Your task to perform on an android device: Open ESPN.com Image 0: 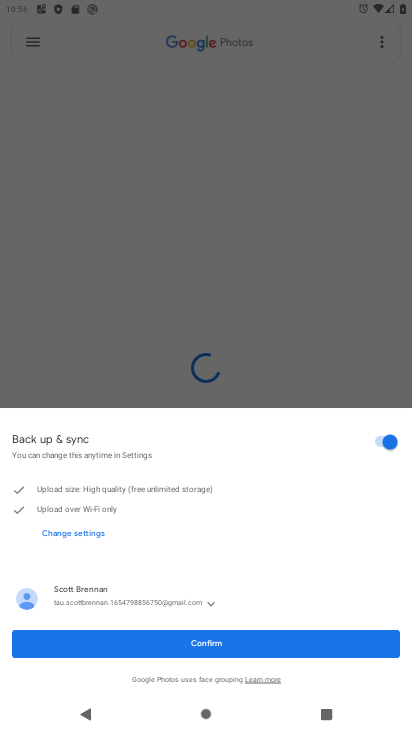
Step 0: press home button
Your task to perform on an android device: Open ESPN.com Image 1: 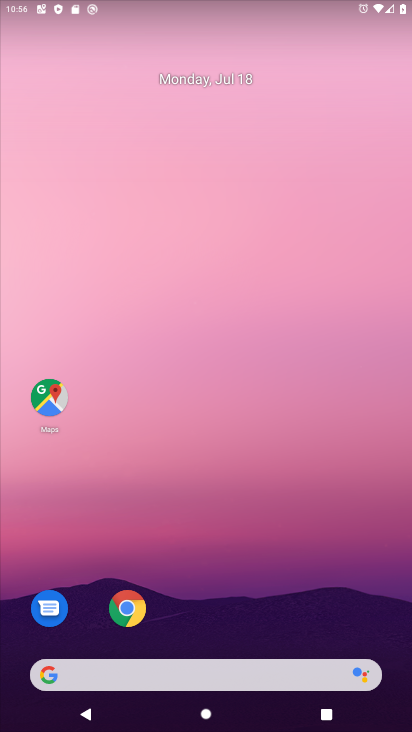
Step 1: click (136, 609)
Your task to perform on an android device: Open ESPN.com Image 2: 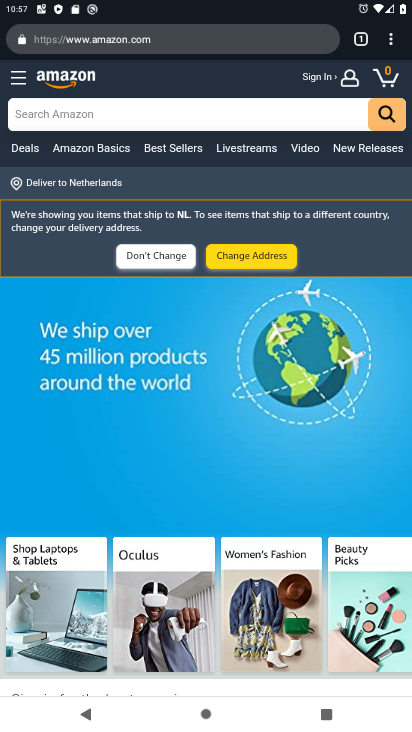
Step 2: click (172, 43)
Your task to perform on an android device: Open ESPN.com Image 3: 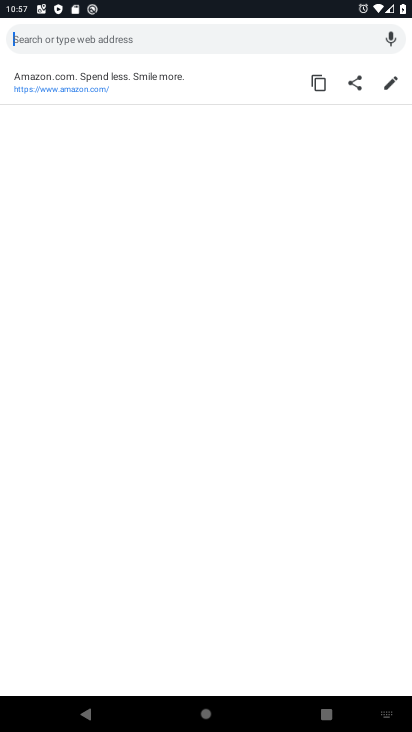
Step 3: type "espn.com"
Your task to perform on an android device: Open ESPN.com Image 4: 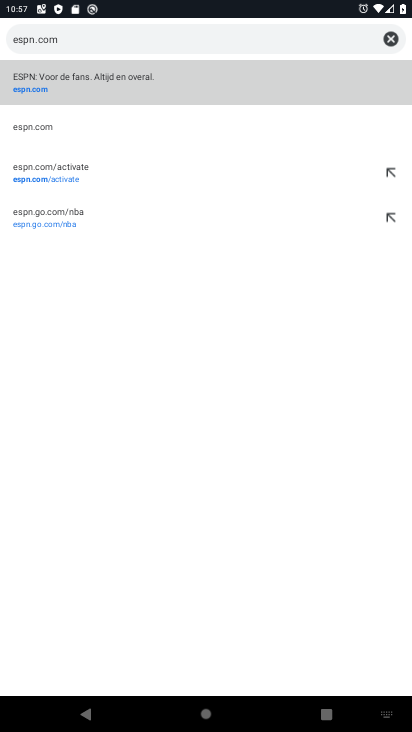
Step 4: click (33, 129)
Your task to perform on an android device: Open ESPN.com Image 5: 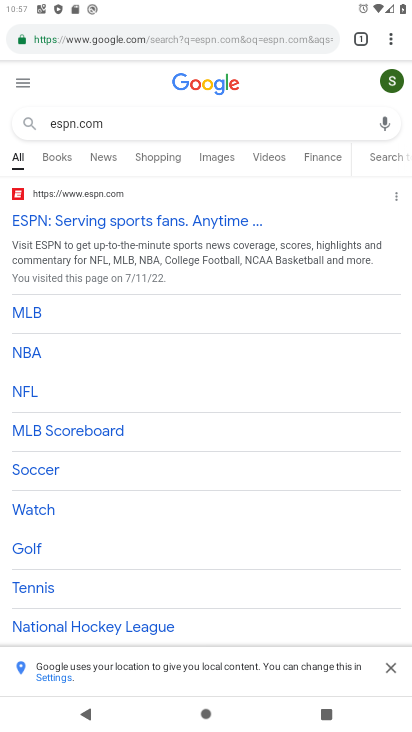
Step 5: task complete